Your task to perform on an android device: Open Chrome and go to the settings page Image 0: 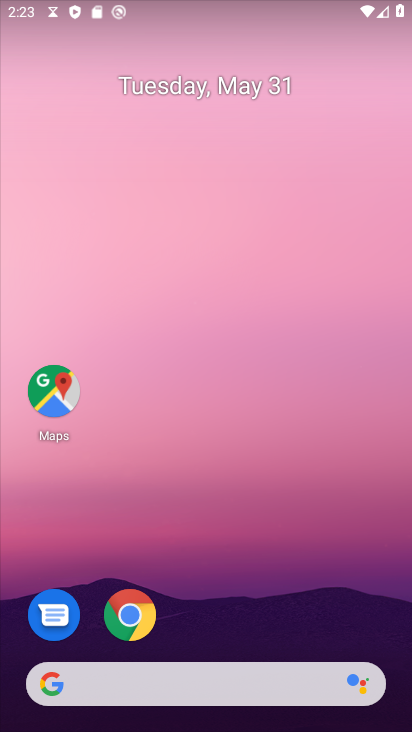
Step 0: drag from (305, 357) to (266, 208)
Your task to perform on an android device: Open Chrome and go to the settings page Image 1: 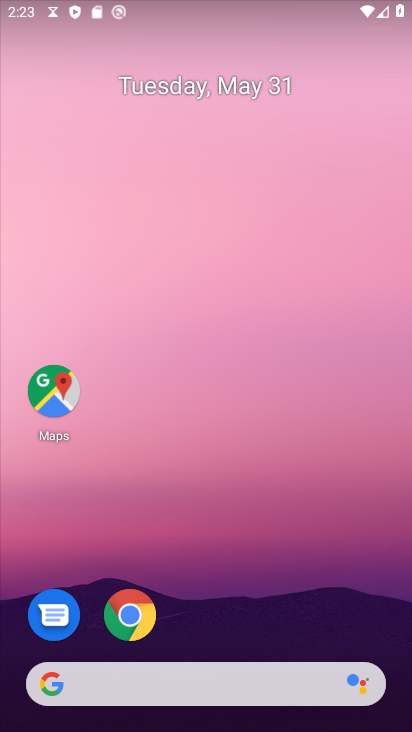
Step 1: drag from (229, 590) to (121, 167)
Your task to perform on an android device: Open Chrome and go to the settings page Image 2: 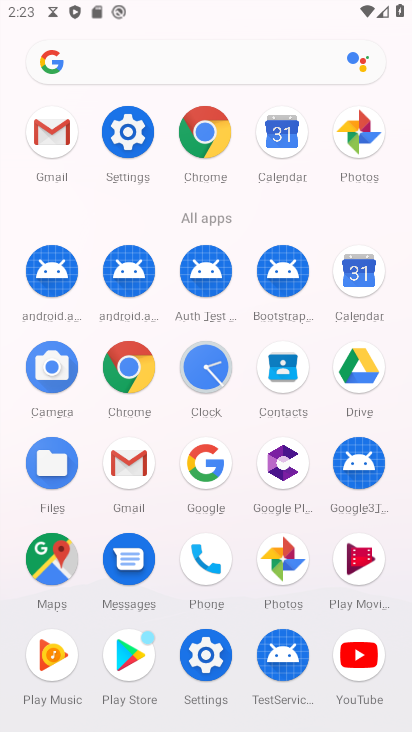
Step 2: click (125, 134)
Your task to perform on an android device: Open Chrome and go to the settings page Image 3: 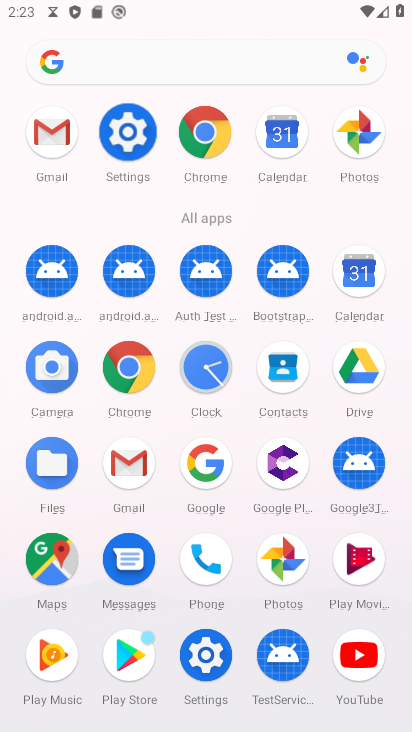
Step 3: click (125, 134)
Your task to perform on an android device: Open Chrome and go to the settings page Image 4: 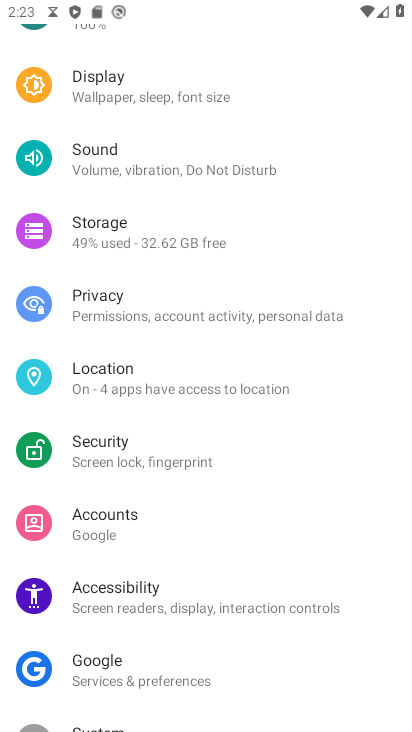
Step 4: press back button
Your task to perform on an android device: Open Chrome and go to the settings page Image 5: 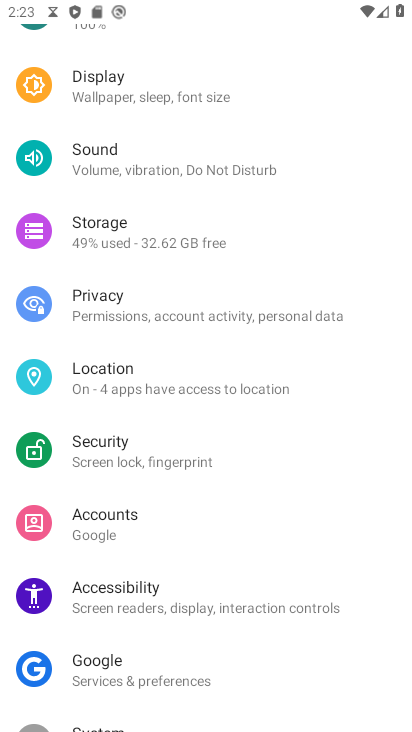
Step 5: press back button
Your task to perform on an android device: Open Chrome and go to the settings page Image 6: 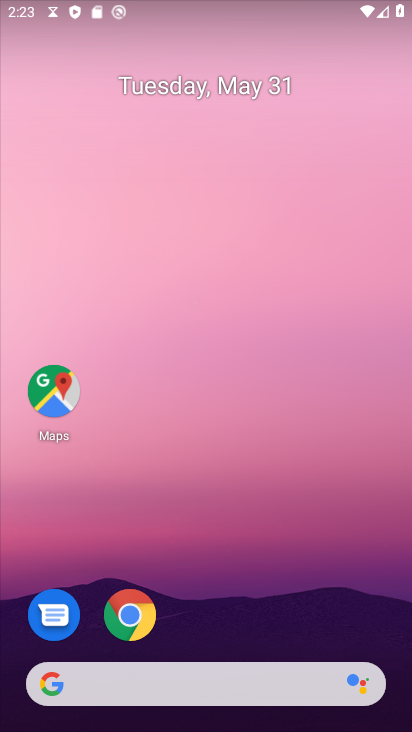
Step 6: drag from (232, 665) to (160, 184)
Your task to perform on an android device: Open Chrome and go to the settings page Image 7: 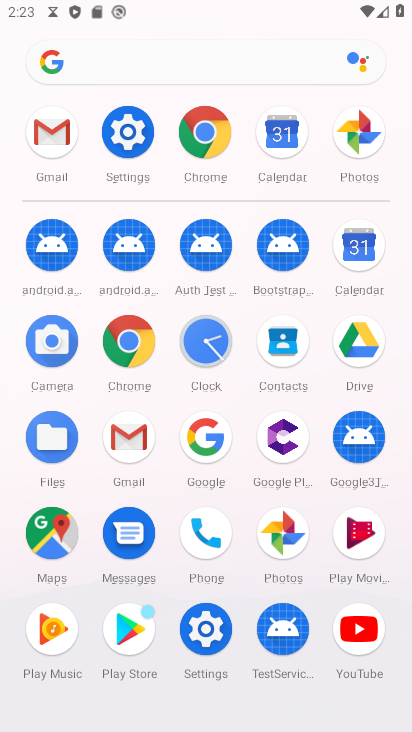
Step 7: click (120, 139)
Your task to perform on an android device: Open Chrome and go to the settings page Image 8: 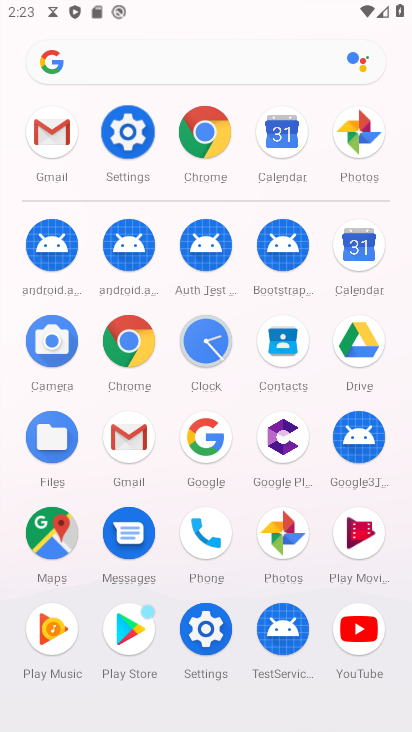
Step 8: click (120, 140)
Your task to perform on an android device: Open Chrome and go to the settings page Image 9: 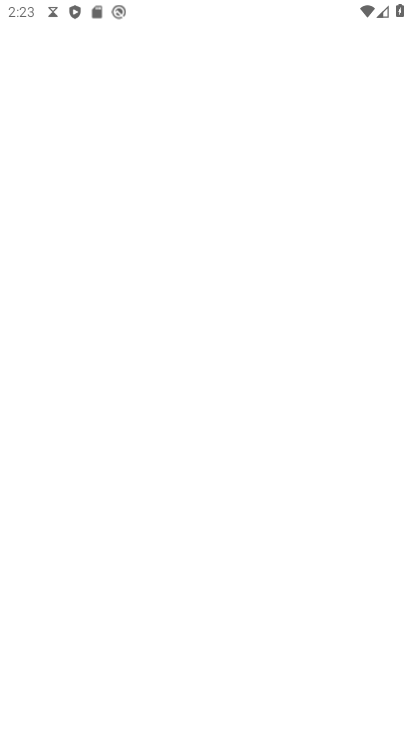
Step 9: click (122, 140)
Your task to perform on an android device: Open Chrome and go to the settings page Image 10: 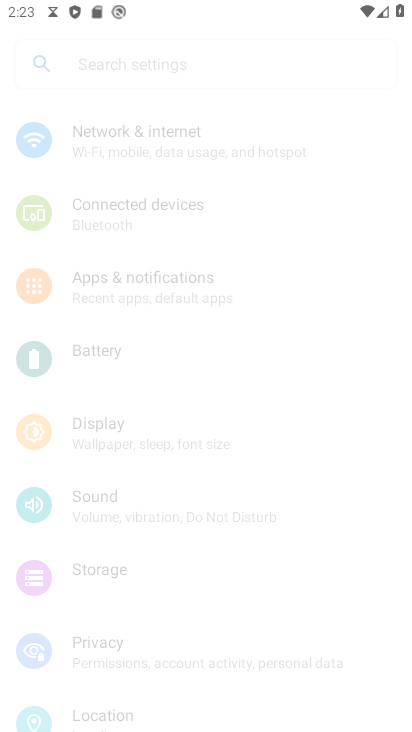
Step 10: click (123, 140)
Your task to perform on an android device: Open Chrome and go to the settings page Image 11: 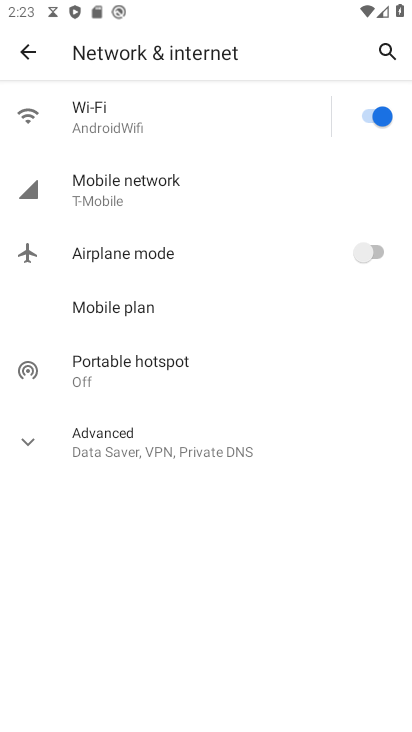
Step 11: click (26, 47)
Your task to perform on an android device: Open Chrome and go to the settings page Image 12: 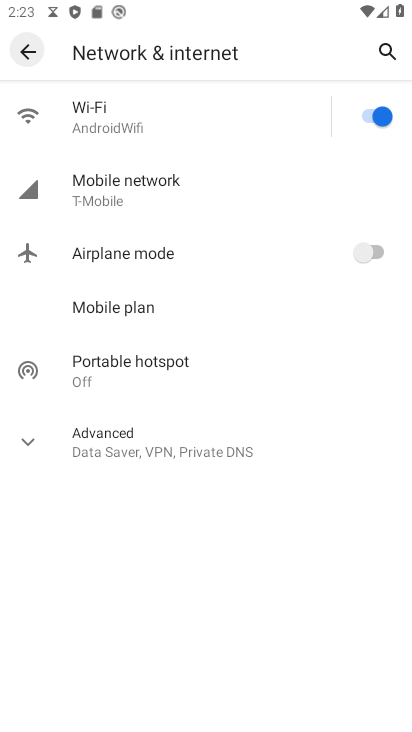
Step 12: click (24, 50)
Your task to perform on an android device: Open Chrome and go to the settings page Image 13: 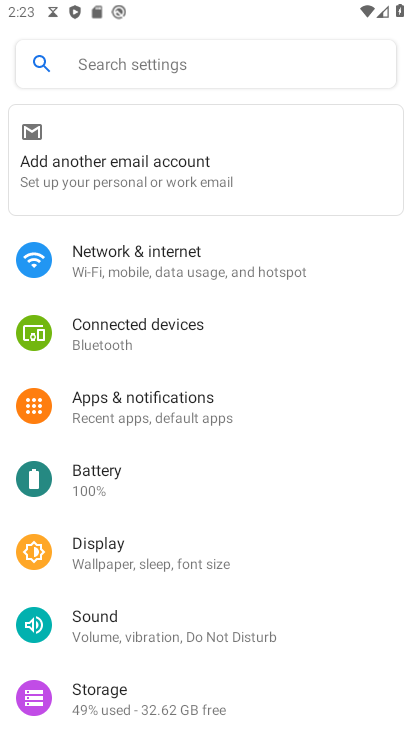
Step 13: press home button
Your task to perform on an android device: Open Chrome and go to the settings page Image 14: 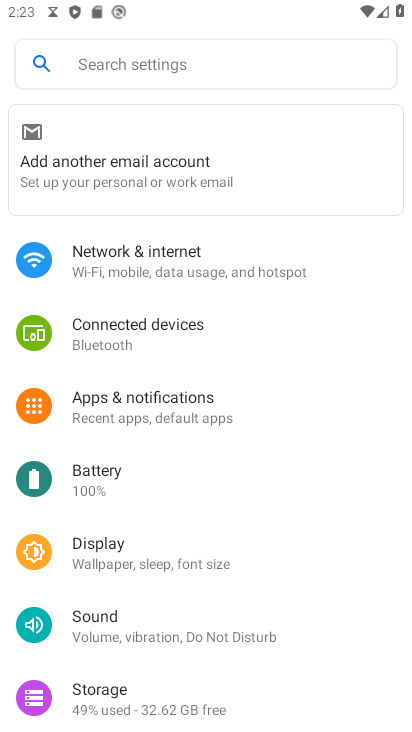
Step 14: press home button
Your task to perform on an android device: Open Chrome and go to the settings page Image 15: 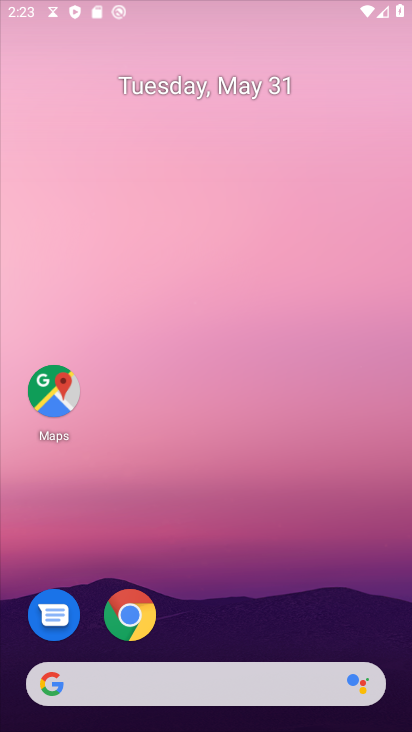
Step 15: press home button
Your task to perform on an android device: Open Chrome and go to the settings page Image 16: 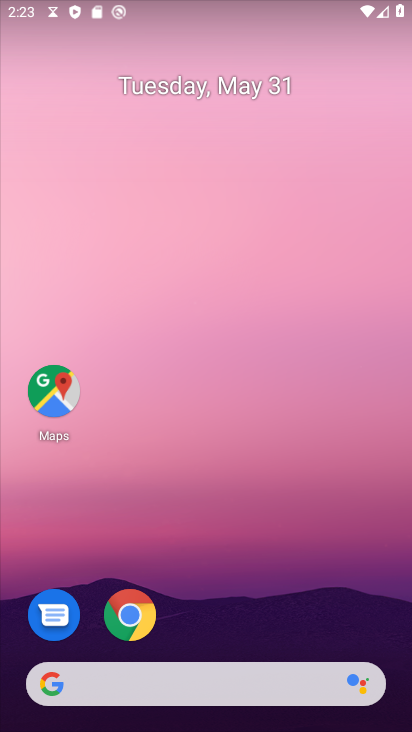
Step 16: drag from (277, 713) to (219, 164)
Your task to perform on an android device: Open Chrome and go to the settings page Image 17: 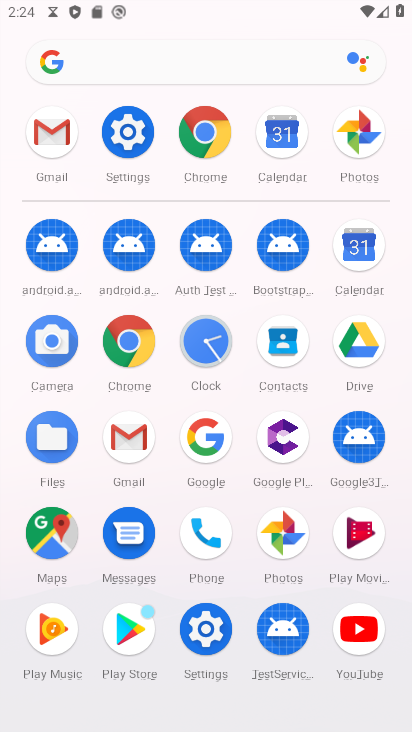
Step 17: click (122, 348)
Your task to perform on an android device: Open Chrome and go to the settings page Image 18: 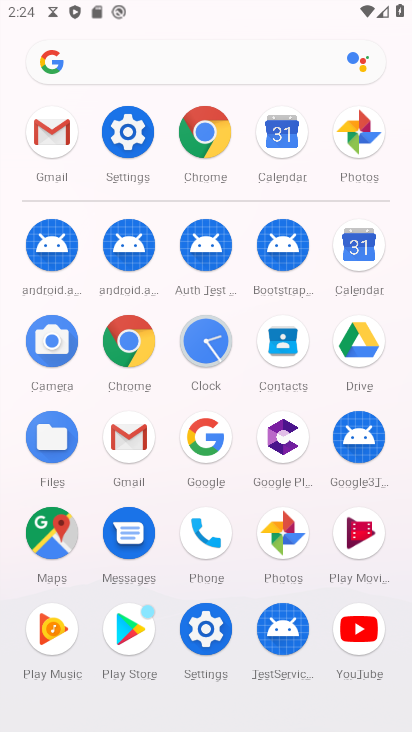
Step 18: click (128, 347)
Your task to perform on an android device: Open Chrome and go to the settings page Image 19: 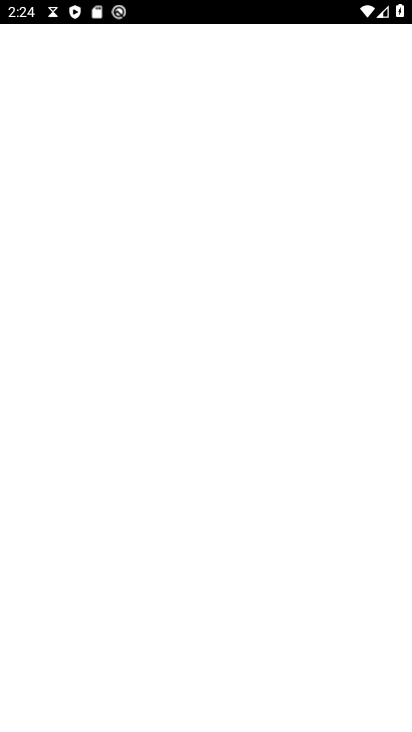
Step 19: click (132, 345)
Your task to perform on an android device: Open Chrome and go to the settings page Image 20: 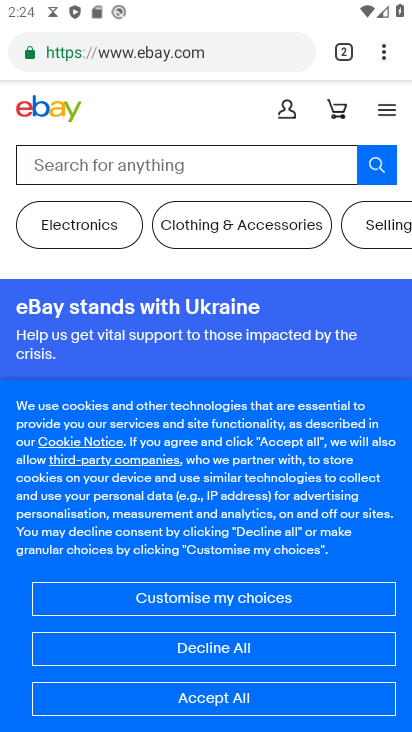
Step 20: drag from (385, 55) to (198, 653)
Your task to perform on an android device: Open Chrome and go to the settings page Image 21: 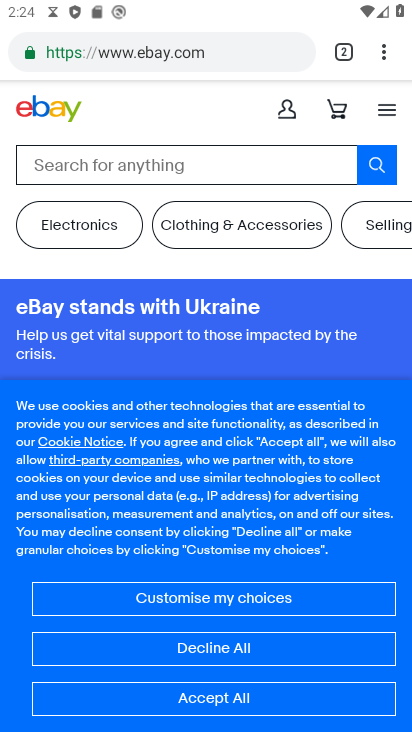
Step 21: click (201, 652)
Your task to perform on an android device: Open Chrome and go to the settings page Image 22: 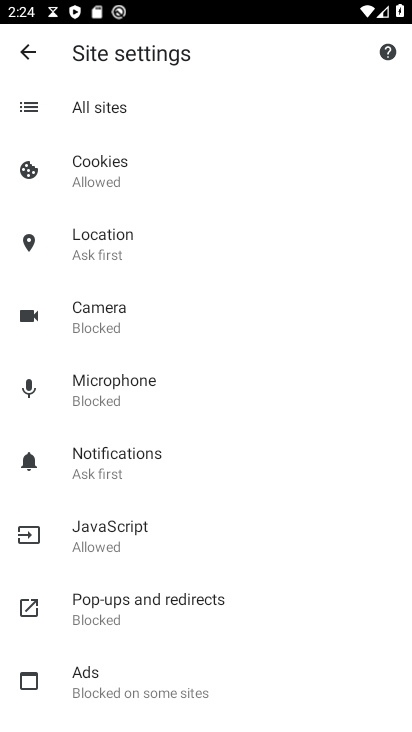
Step 22: task complete